Your task to perform on an android device: Go to display settings Image 0: 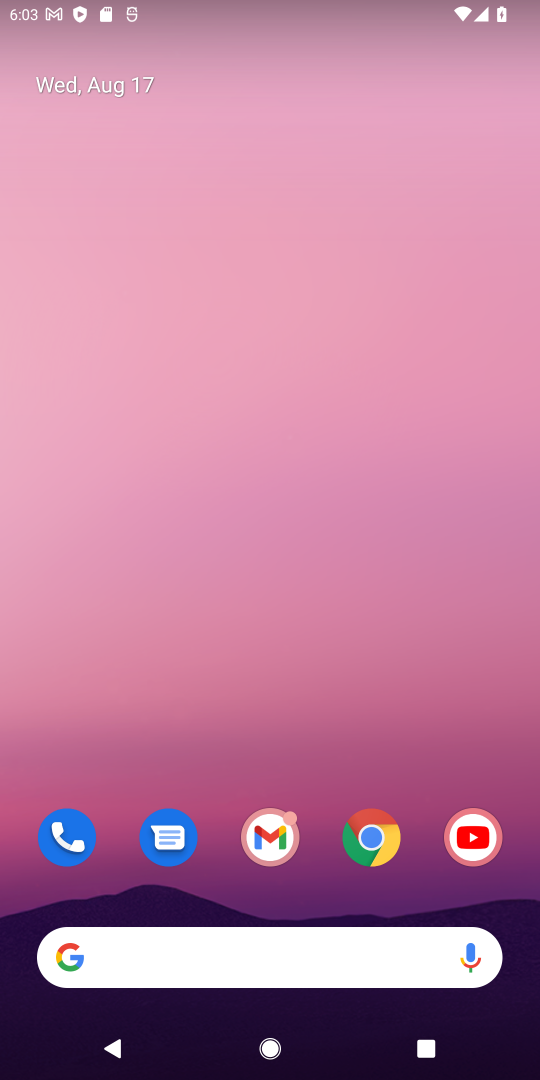
Step 0: drag from (272, 883) to (307, 61)
Your task to perform on an android device: Go to display settings Image 1: 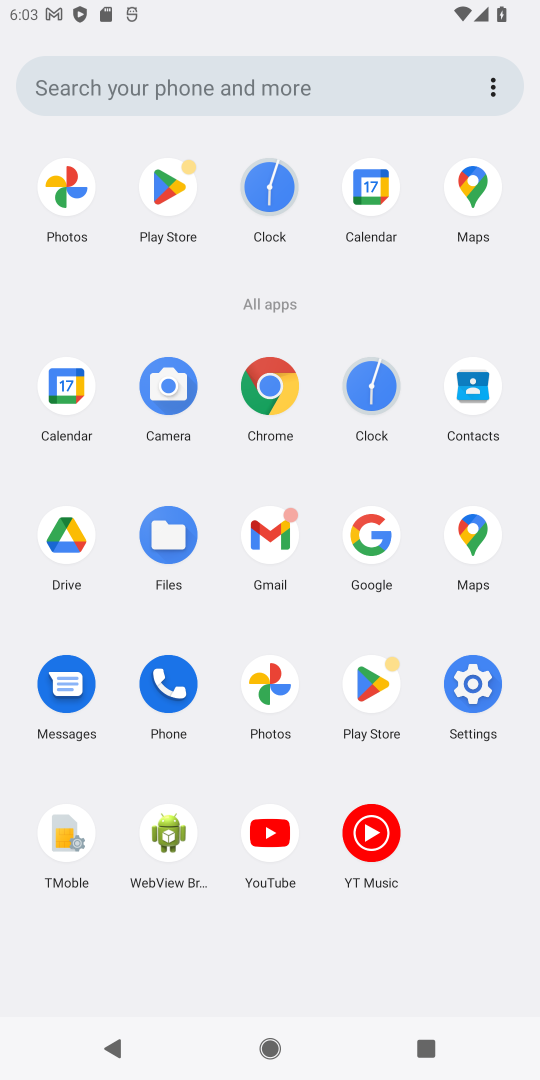
Step 1: click (466, 683)
Your task to perform on an android device: Go to display settings Image 2: 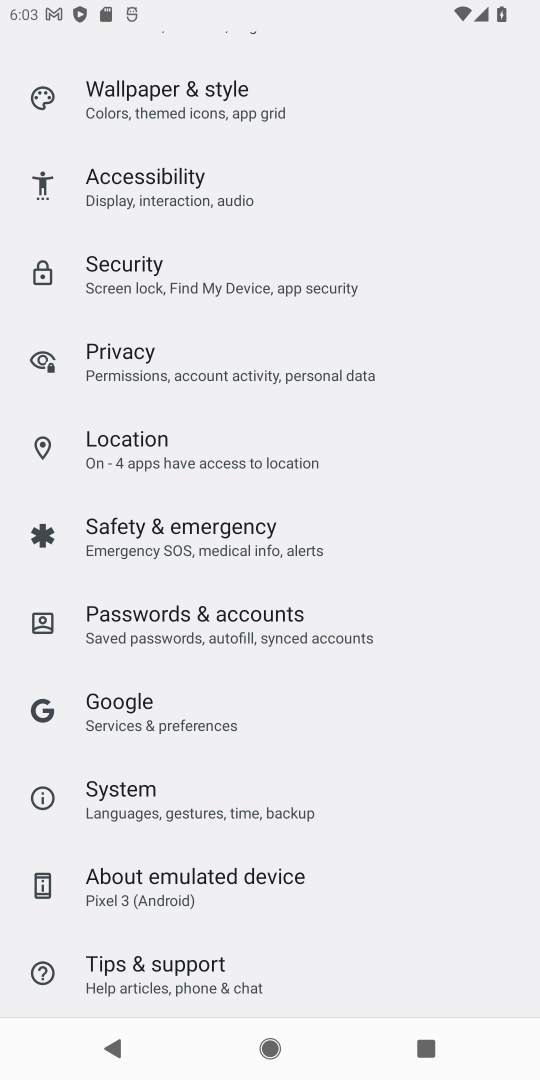
Step 2: drag from (258, 234) to (254, 929)
Your task to perform on an android device: Go to display settings Image 3: 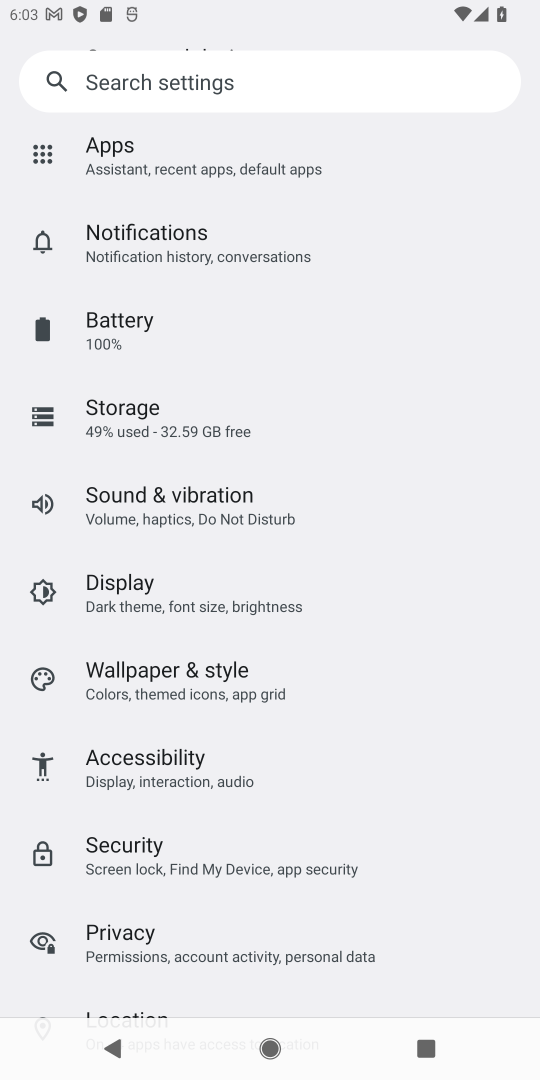
Step 3: click (143, 579)
Your task to perform on an android device: Go to display settings Image 4: 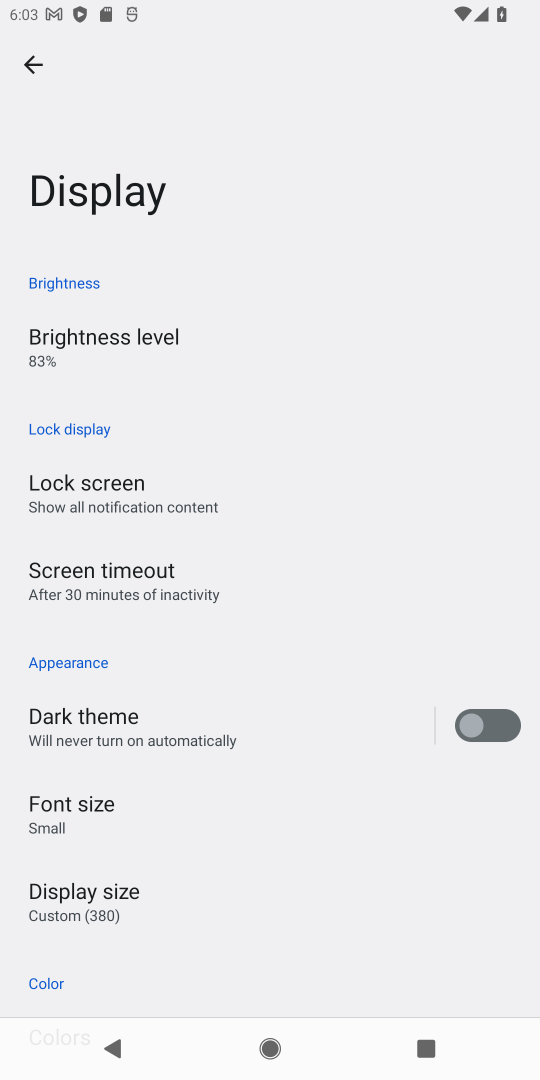
Step 4: task complete